Your task to perform on an android device: turn off picture-in-picture Image 0: 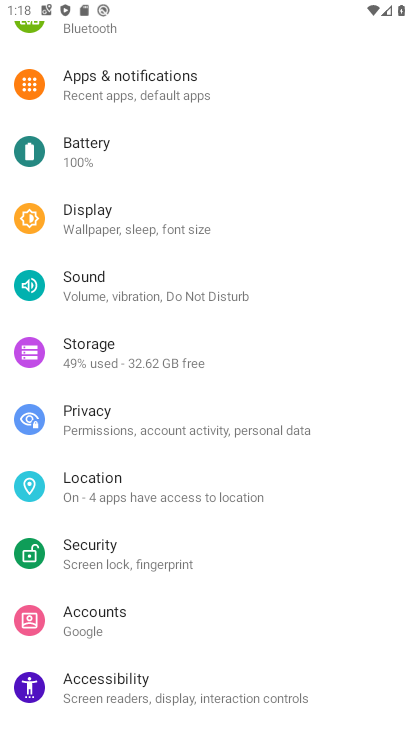
Step 0: press home button
Your task to perform on an android device: turn off picture-in-picture Image 1: 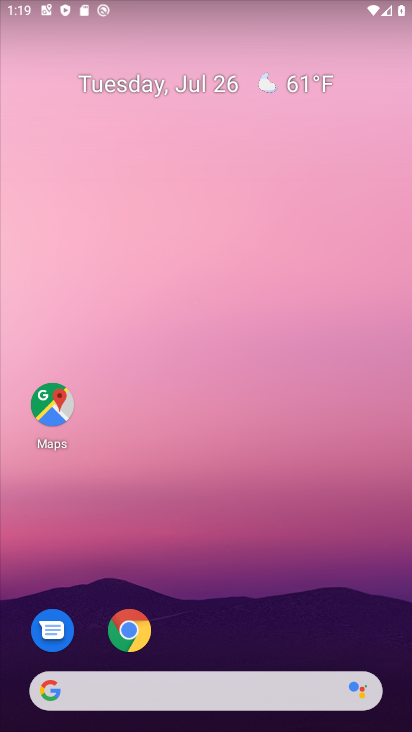
Step 1: click (119, 635)
Your task to perform on an android device: turn off picture-in-picture Image 2: 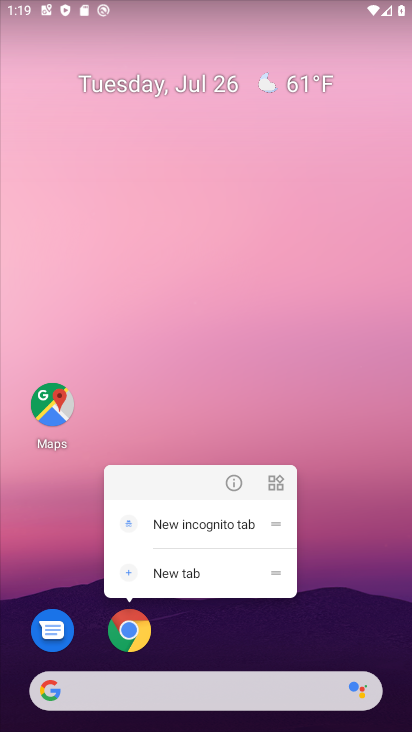
Step 2: click (238, 482)
Your task to perform on an android device: turn off picture-in-picture Image 3: 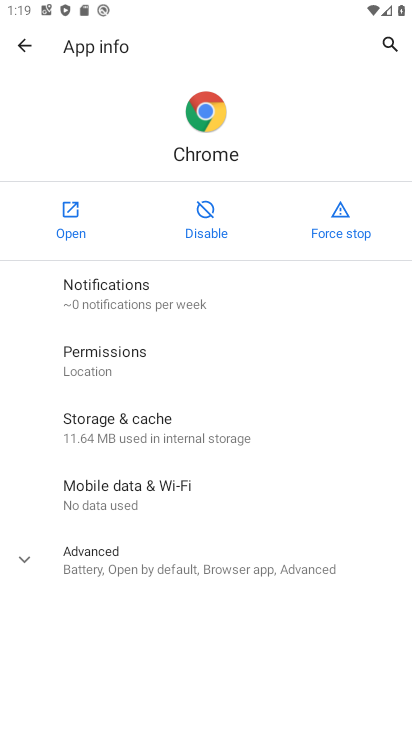
Step 3: click (122, 557)
Your task to perform on an android device: turn off picture-in-picture Image 4: 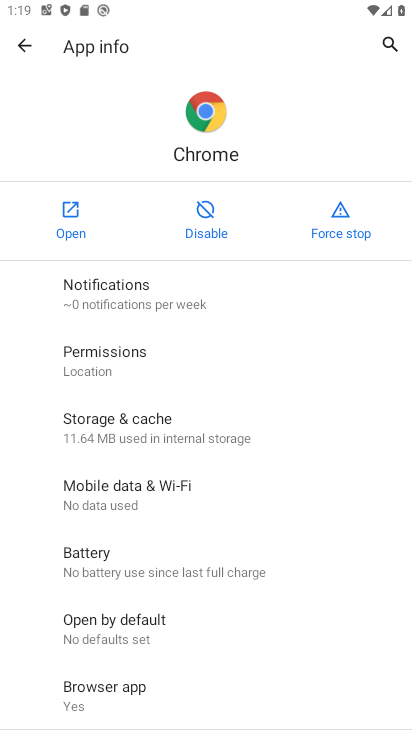
Step 4: drag from (145, 663) to (126, 214)
Your task to perform on an android device: turn off picture-in-picture Image 5: 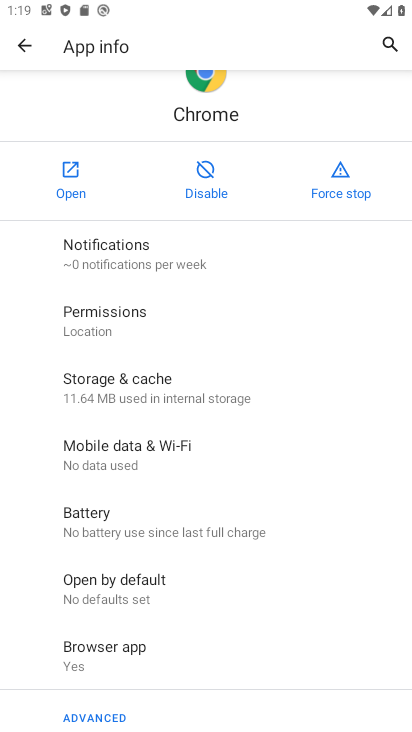
Step 5: drag from (226, 660) to (201, 324)
Your task to perform on an android device: turn off picture-in-picture Image 6: 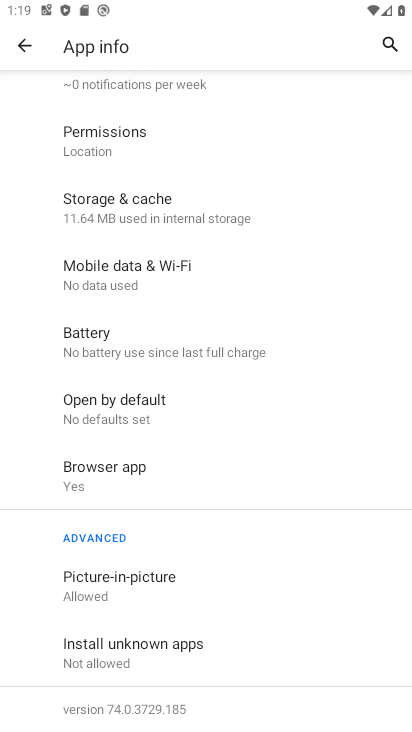
Step 6: click (120, 586)
Your task to perform on an android device: turn off picture-in-picture Image 7: 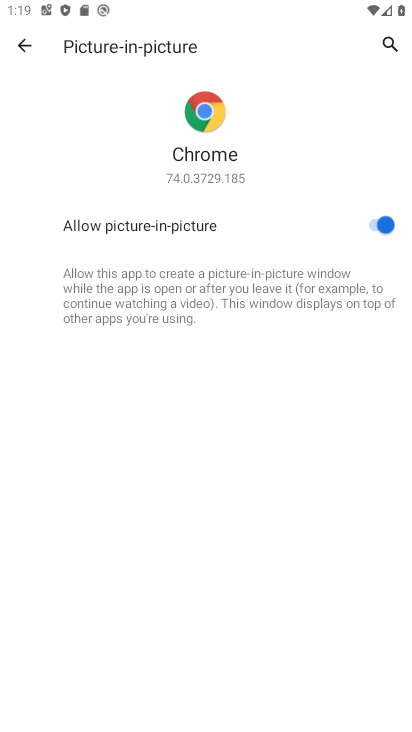
Step 7: click (384, 229)
Your task to perform on an android device: turn off picture-in-picture Image 8: 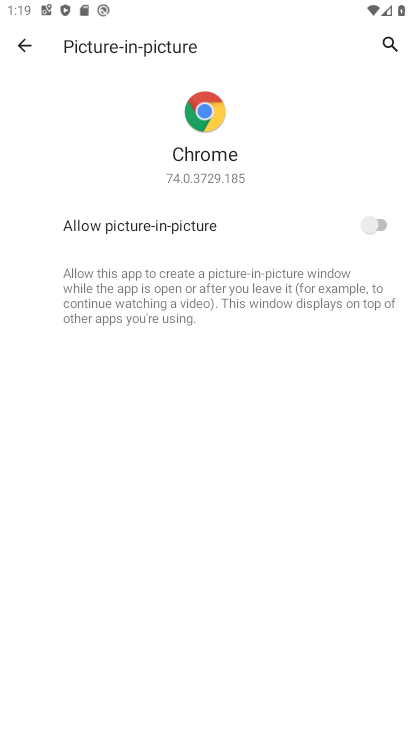
Step 8: task complete